Your task to perform on an android device: Play the last video I watched on Youtube Image 0: 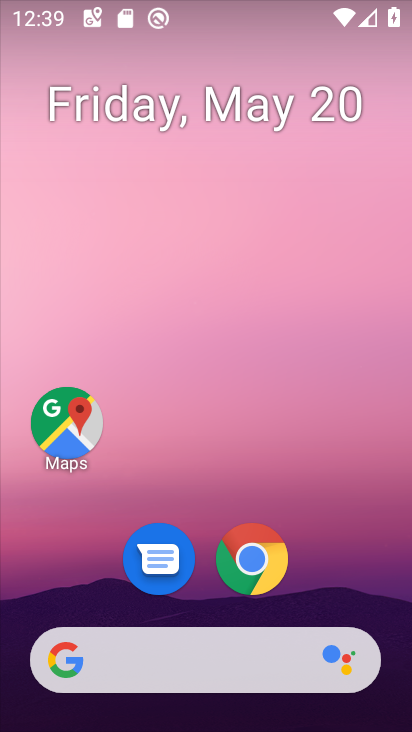
Step 0: drag from (366, 598) to (272, 88)
Your task to perform on an android device: Play the last video I watched on Youtube Image 1: 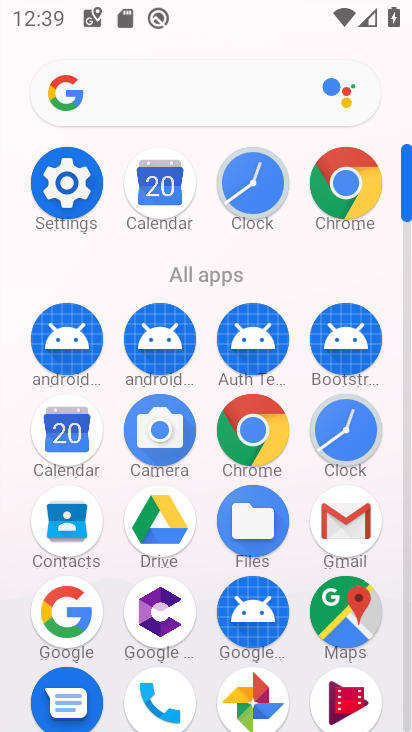
Step 1: click (407, 675)
Your task to perform on an android device: Play the last video I watched on Youtube Image 2: 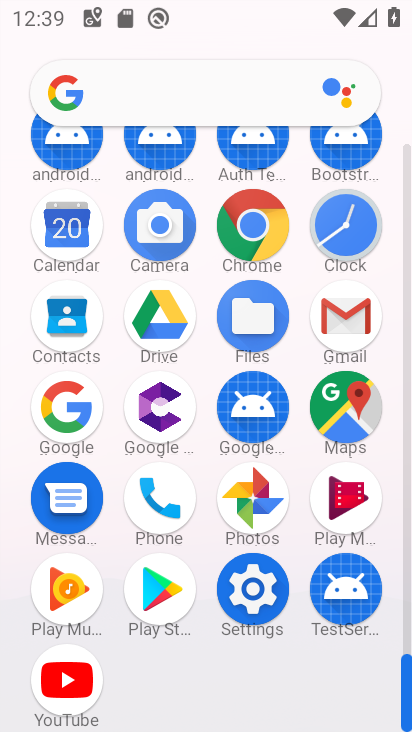
Step 2: click (66, 667)
Your task to perform on an android device: Play the last video I watched on Youtube Image 3: 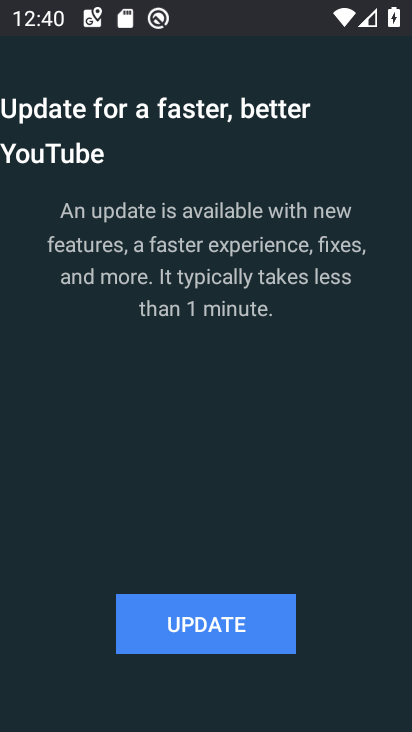
Step 3: click (167, 622)
Your task to perform on an android device: Play the last video I watched on Youtube Image 4: 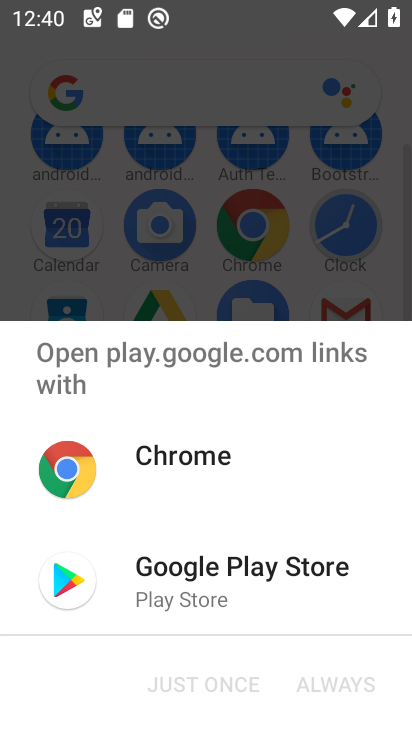
Step 4: click (232, 591)
Your task to perform on an android device: Play the last video I watched on Youtube Image 5: 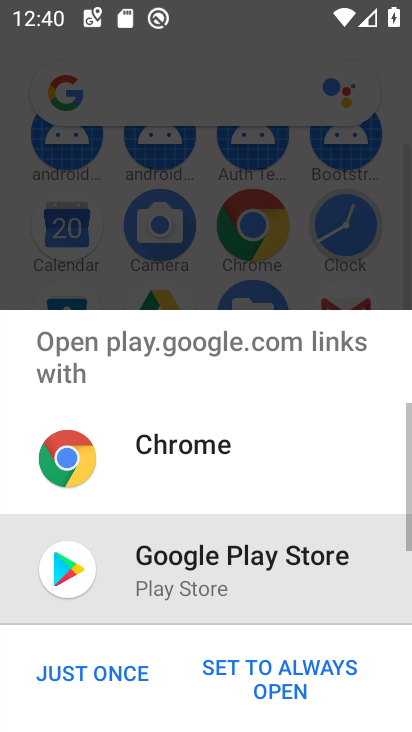
Step 5: click (98, 676)
Your task to perform on an android device: Play the last video I watched on Youtube Image 6: 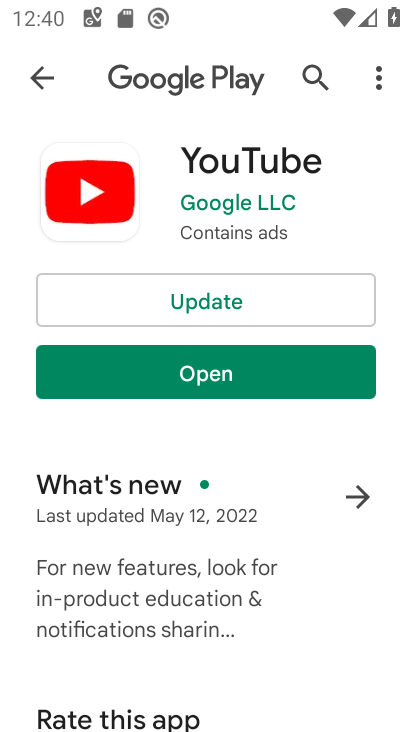
Step 6: click (224, 312)
Your task to perform on an android device: Play the last video I watched on Youtube Image 7: 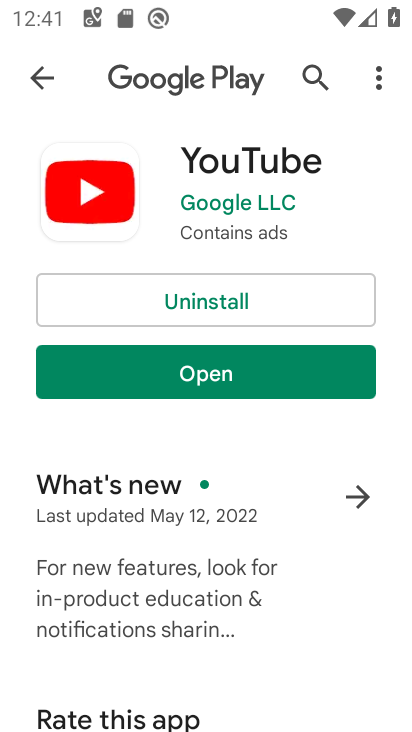
Step 7: click (268, 363)
Your task to perform on an android device: Play the last video I watched on Youtube Image 8: 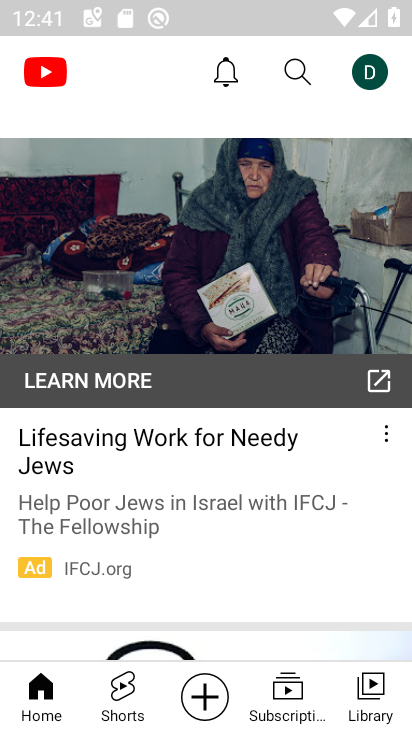
Step 8: click (364, 692)
Your task to perform on an android device: Play the last video I watched on Youtube Image 9: 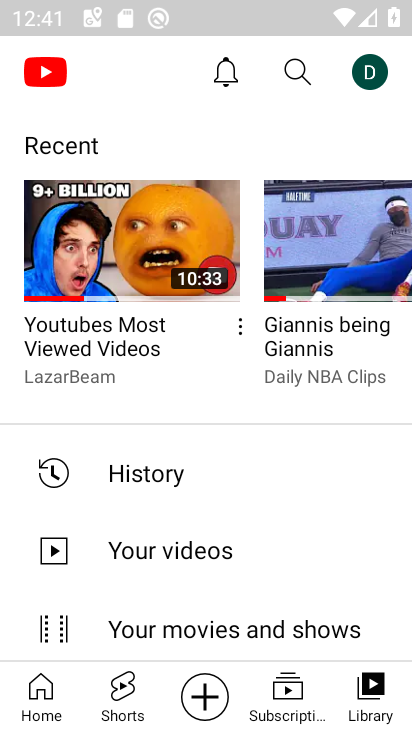
Step 9: click (117, 253)
Your task to perform on an android device: Play the last video I watched on Youtube Image 10: 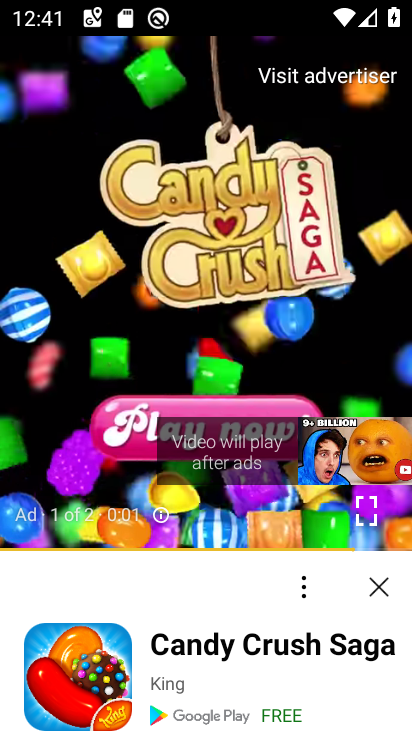
Step 10: task complete